Your task to perform on an android device: Open calendar and show me the fourth week of next month Image 0: 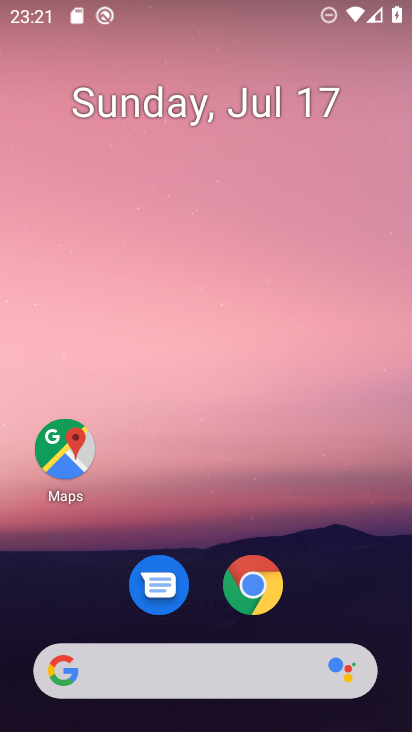
Step 0: press home button
Your task to perform on an android device: Open calendar and show me the fourth week of next month Image 1: 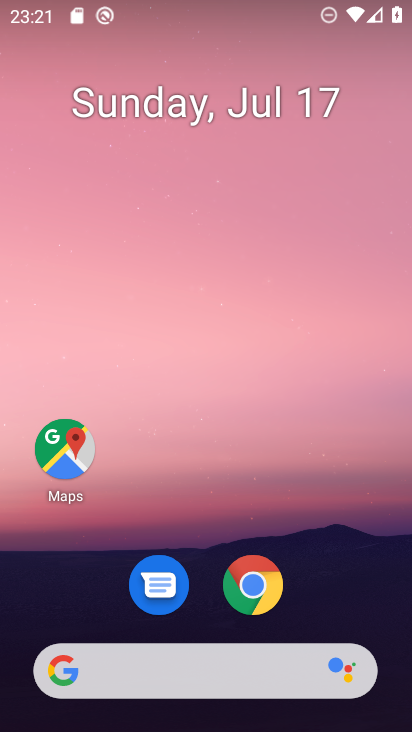
Step 1: drag from (212, 683) to (296, 138)
Your task to perform on an android device: Open calendar and show me the fourth week of next month Image 2: 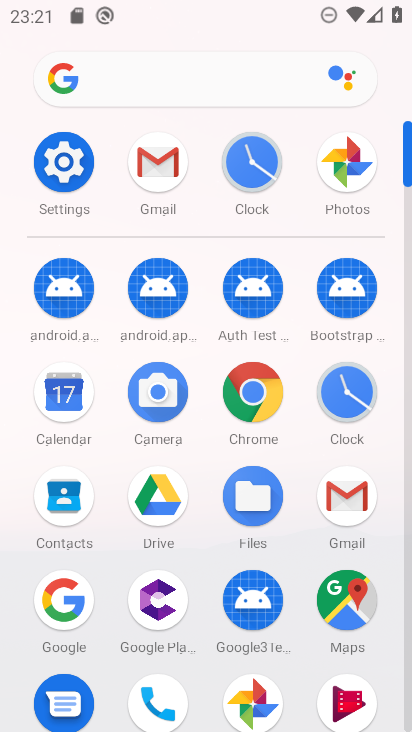
Step 2: click (73, 389)
Your task to perform on an android device: Open calendar and show me the fourth week of next month Image 3: 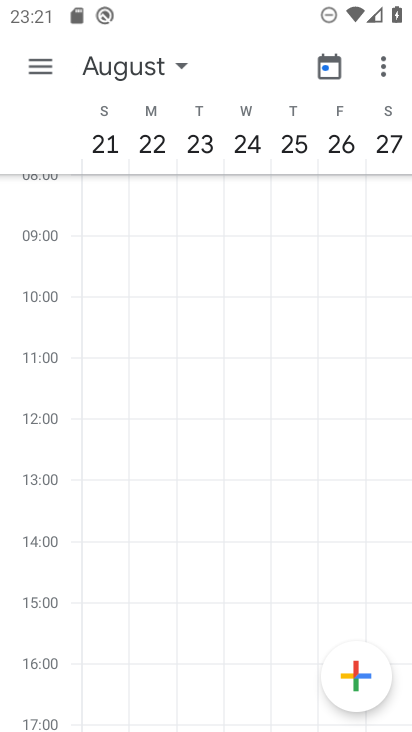
Step 3: click (127, 71)
Your task to perform on an android device: Open calendar and show me the fourth week of next month Image 4: 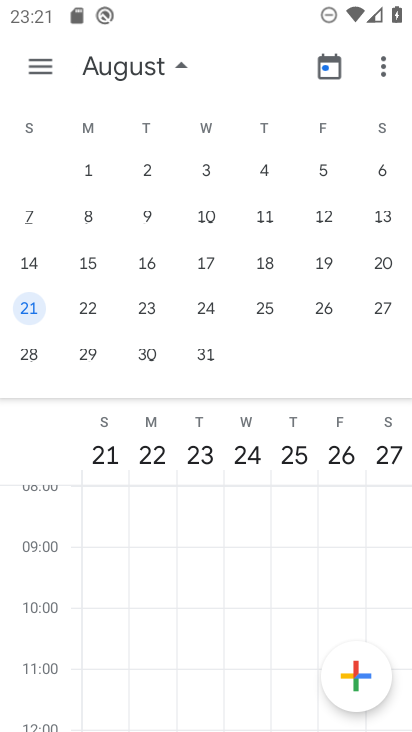
Step 4: task complete